Your task to perform on an android device: check out phone information Image 0: 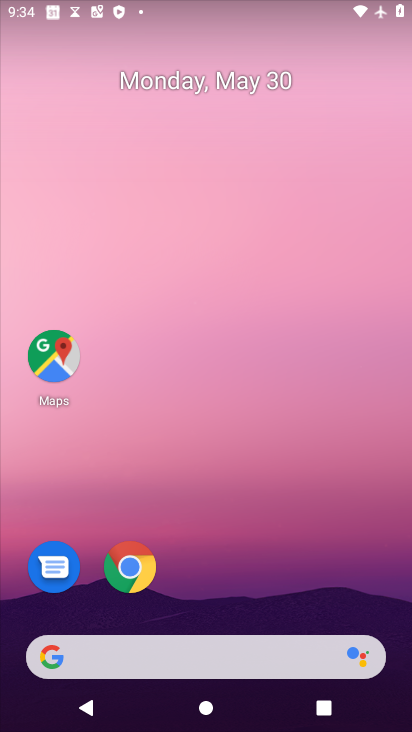
Step 0: drag from (237, 612) to (290, 111)
Your task to perform on an android device: check out phone information Image 1: 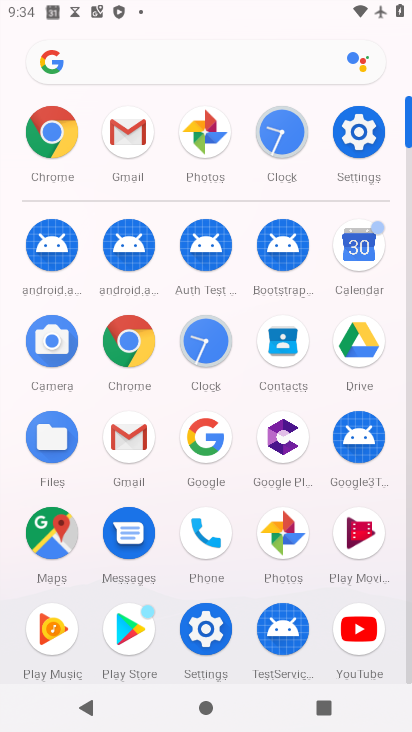
Step 1: click (373, 152)
Your task to perform on an android device: check out phone information Image 2: 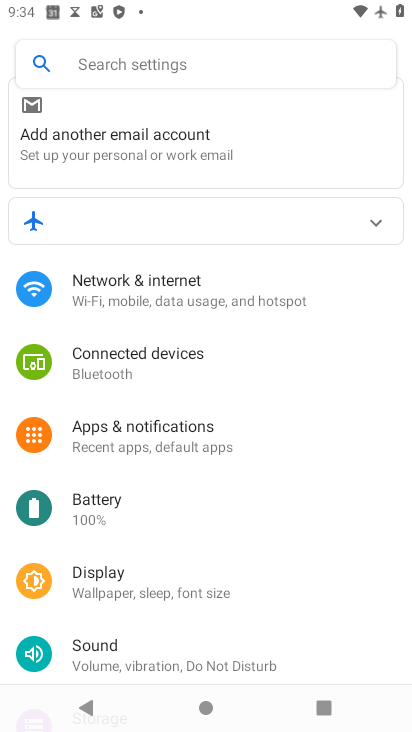
Step 2: drag from (272, 649) to (189, 88)
Your task to perform on an android device: check out phone information Image 3: 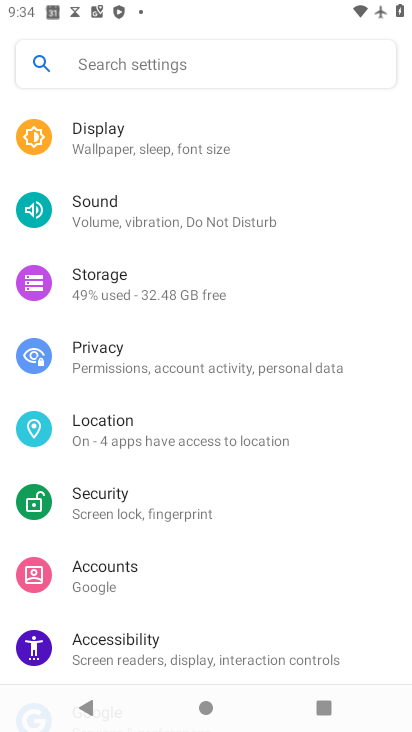
Step 3: drag from (266, 622) to (267, 300)
Your task to perform on an android device: check out phone information Image 4: 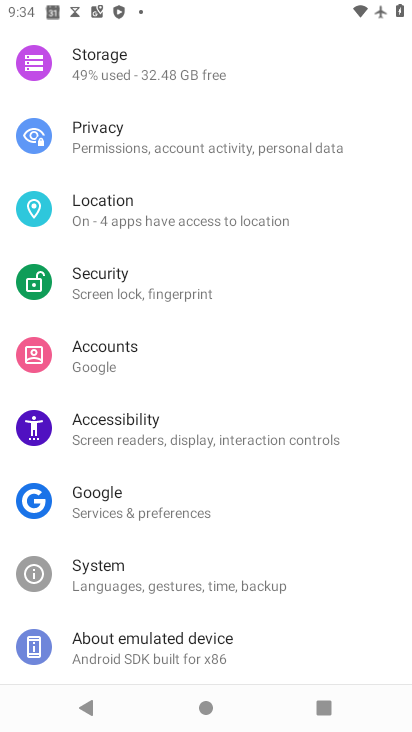
Step 4: click (154, 656)
Your task to perform on an android device: check out phone information Image 5: 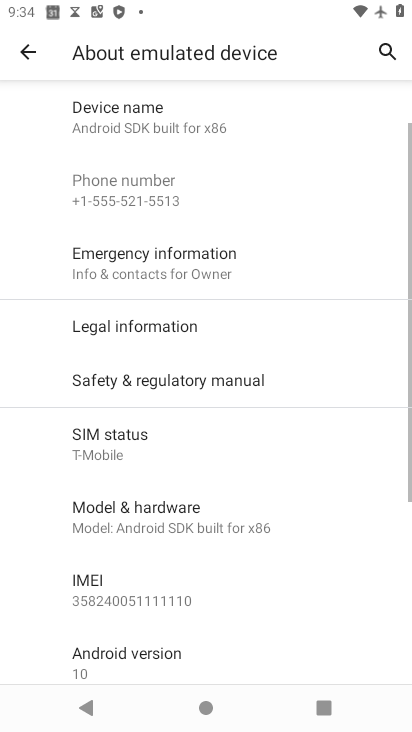
Step 5: task complete